Your task to perform on an android device: Open Android settings Image 0: 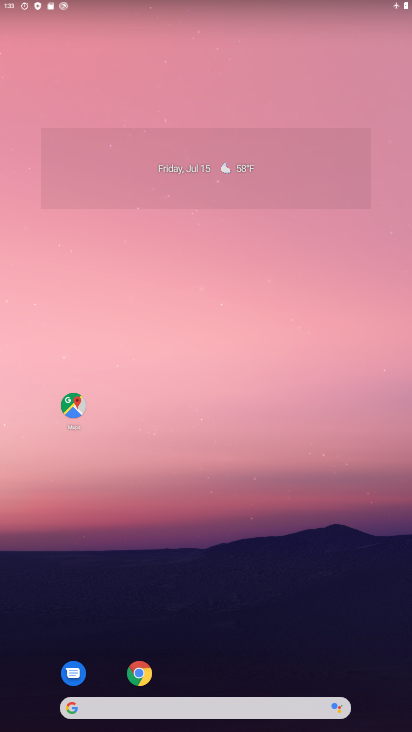
Step 0: drag from (208, 640) to (217, 145)
Your task to perform on an android device: Open Android settings Image 1: 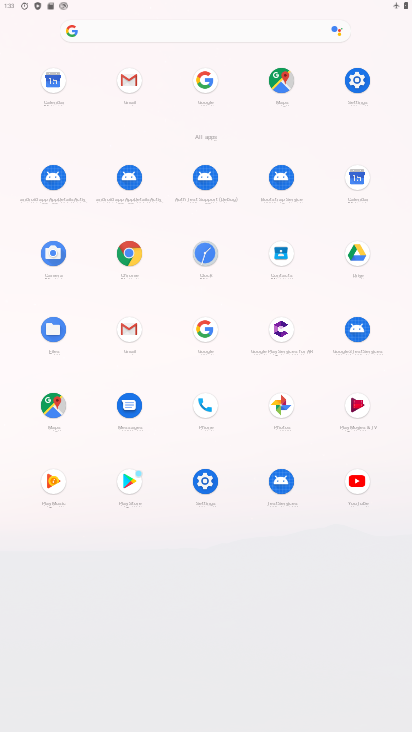
Step 1: click (361, 82)
Your task to perform on an android device: Open Android settings Image 2: 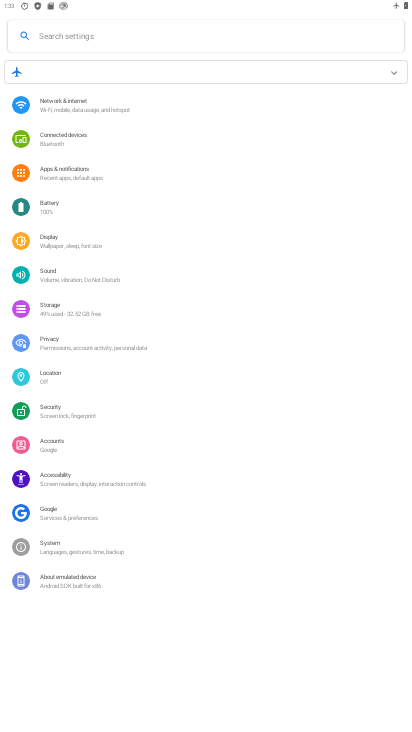
Step 2: task complete